Your task to perform on an android device: turn on improve location accuracy Image 0: 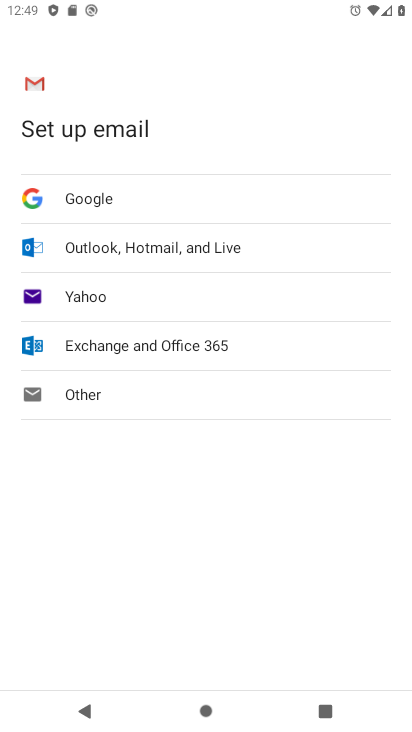
Step 0: press home button
Your task to perform on an android device: turn on improve location accuracy Image 1: 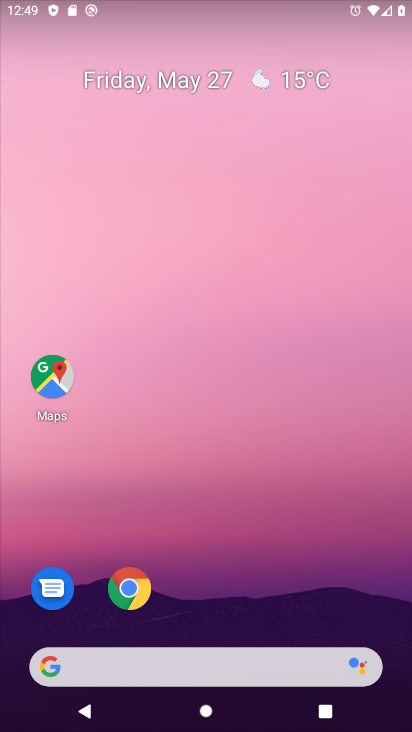
Step 1: drag from (372, 619) to (316, 26)
Your task to perform on an android device: turn on improve location accuracy Image 2: 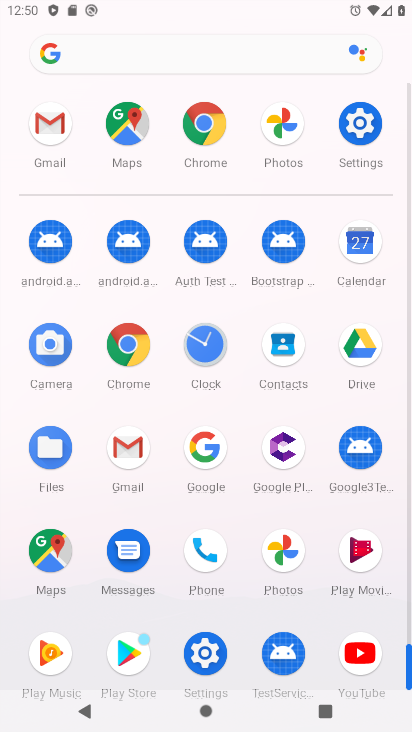
Step 2: click (411, 638)
Your task to perform on an android device: turn on improve location accuracy Image 3: 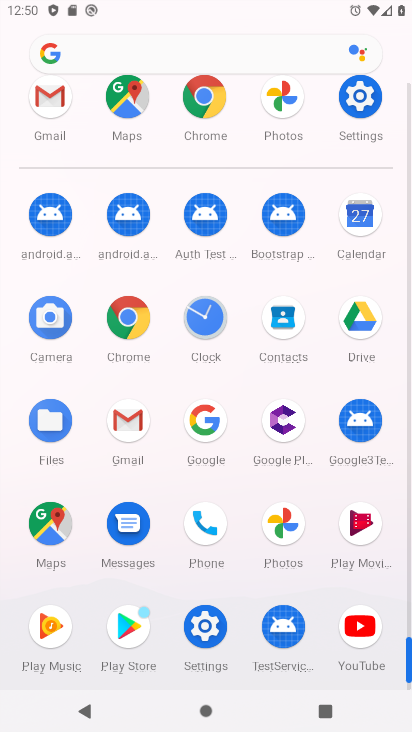
Step 3: click (205, 630)
Your task to perform on an android device: turn on improve location accuracy Image 4: 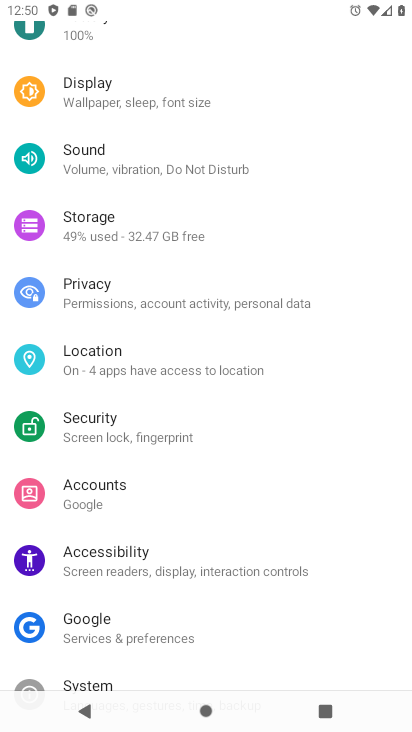
Step 4: click (138, 352)
Your task to perform on an android device: turn on improve location accuracy Image 5: 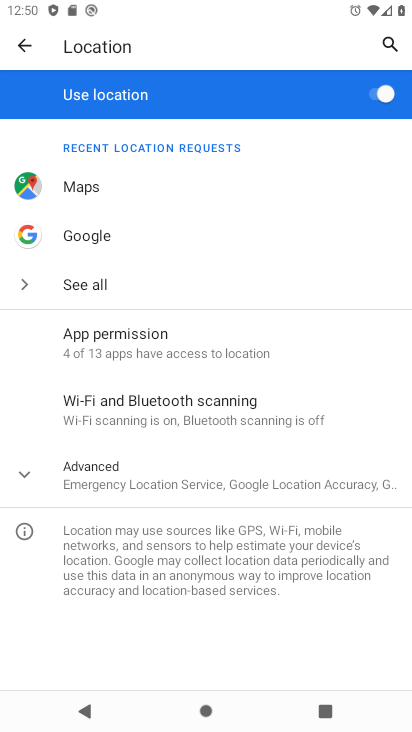
Step 5: click (24, 480)
Your task to perform on an android device: turn on improve location accuracy Image 6: 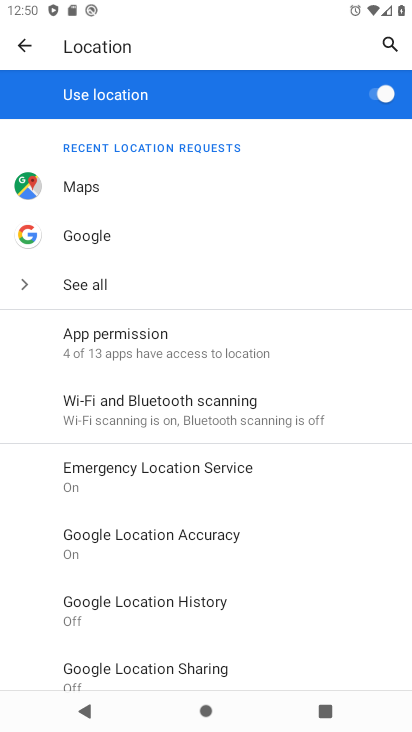
Step 6: click (135, 527)
Your task to perform on an android device: turn on improve location accuracy Image 7: 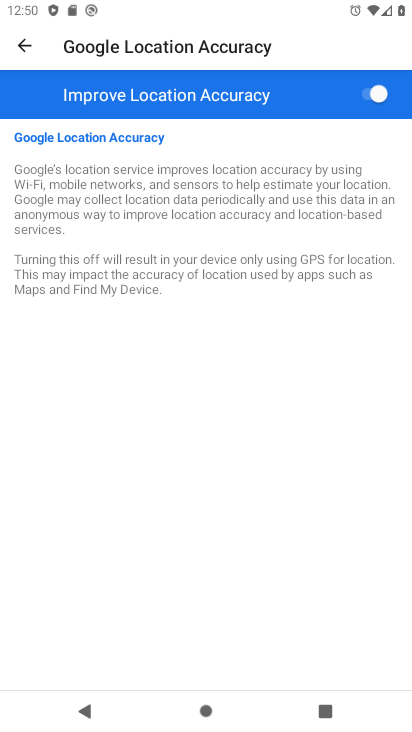
Step 7: task complete